Your task to perform on an android device: open the mobile data screen to see how much data has been used Image 0: 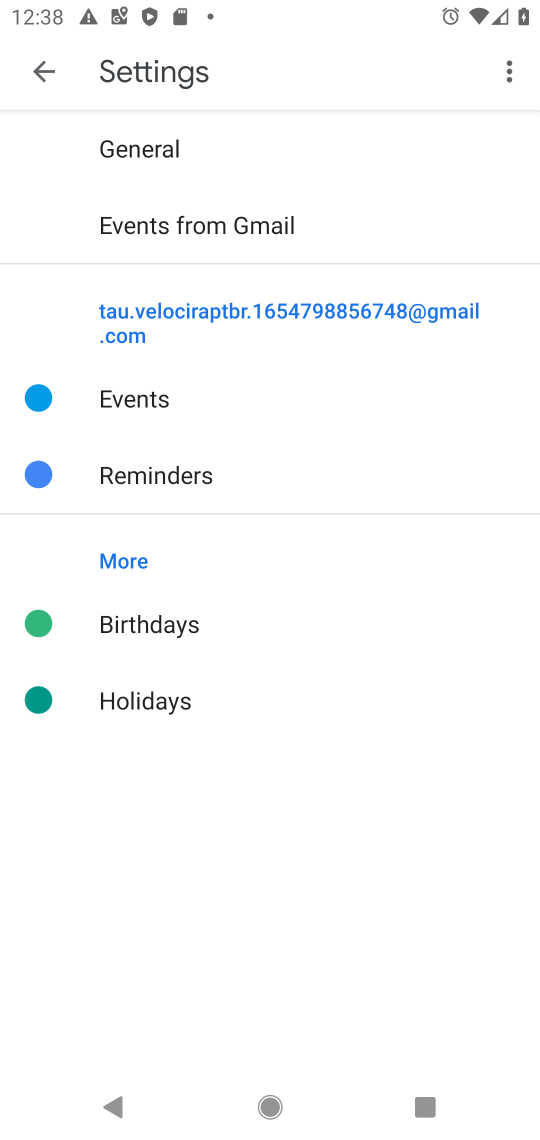
Step 0: press home button
Your task to perform on an android device: open the mobile data screen to see how much data has been used Image 1: 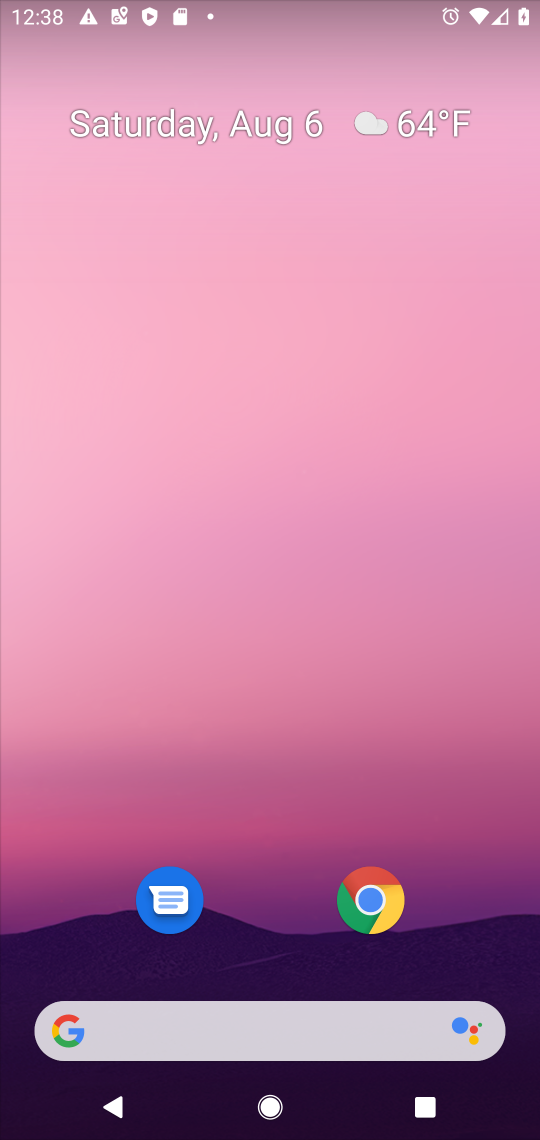
Step 1: drag from (254, 892) to (245, 73)
Your task to perform on an android device: open the mobile data screen to see how much data has been used Image 2: 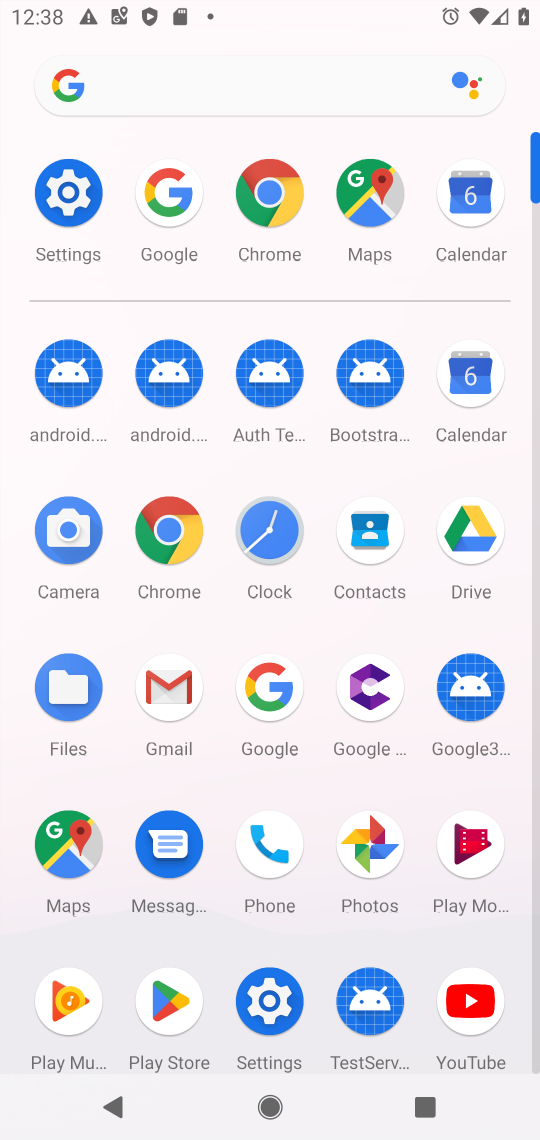
Step 2: click (80, 192)
Your task to perform on an android device: open the mobile data screen to see how much data has been used Image 3: 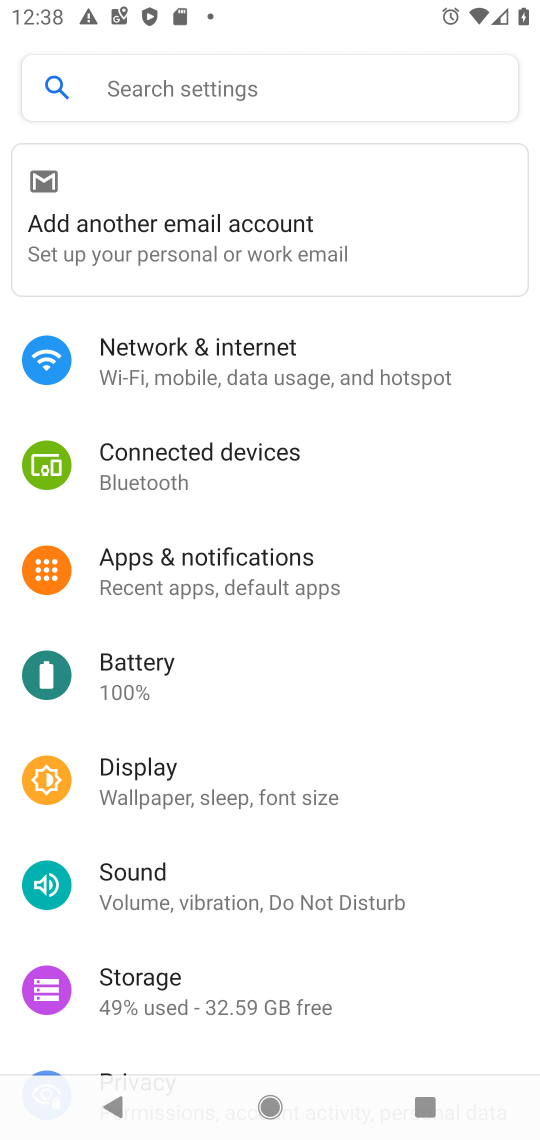
Step 3: click (177, 370)
Your task to perform on an android device: open the mobile data screen to see how much data has been used Image 4: 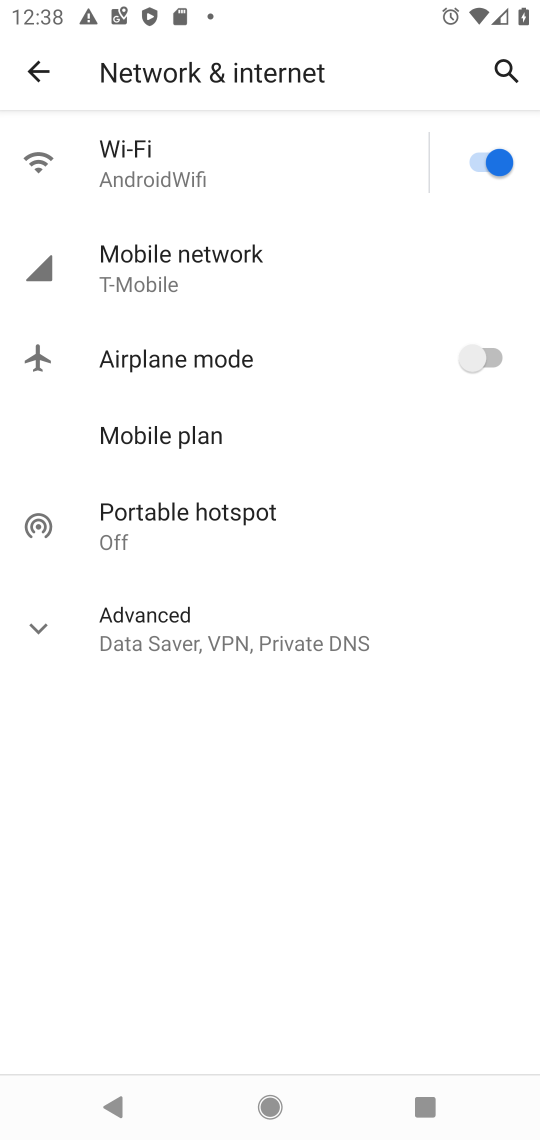
Step 4: click (128, 252)
Your task to perform on an android device: open the mobile data screen to see how much data has been used Image 5: 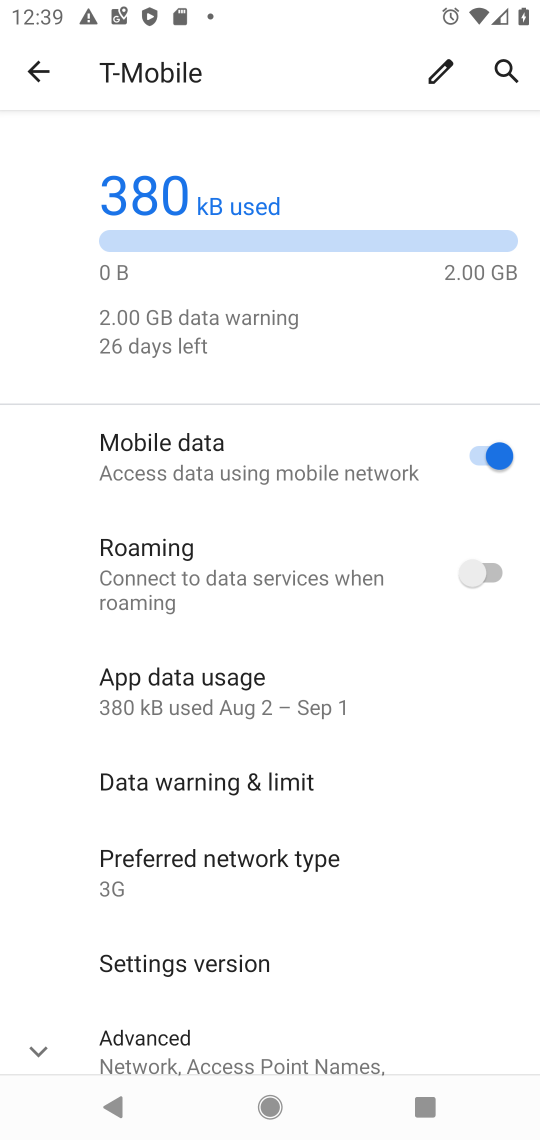
Step 5: click (190, 696)
Your task to perform on an android device: open the mobile data screen to see how much data has been used Image 6: 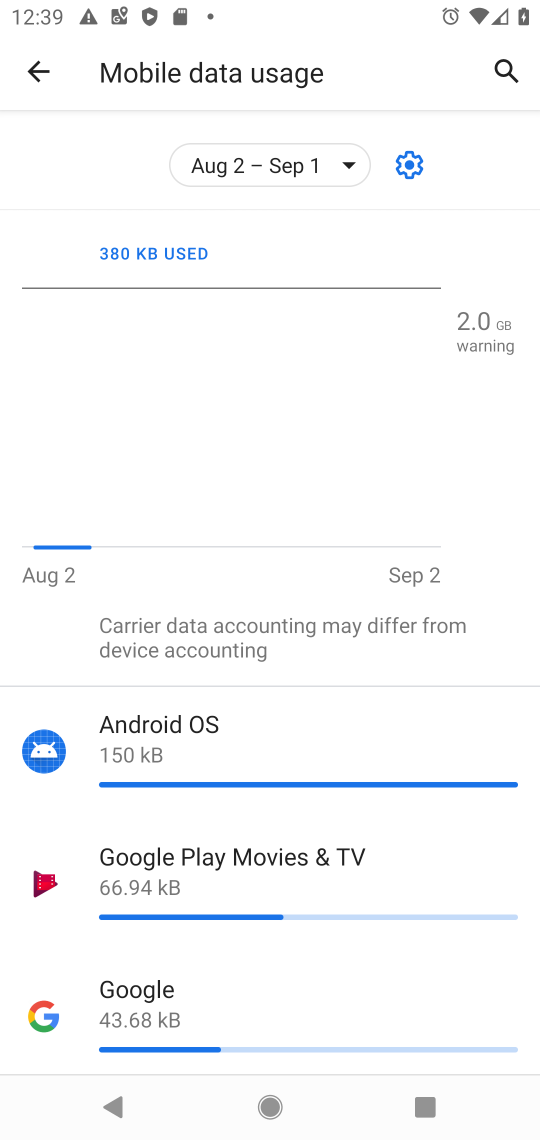
Step 6: task complete